Your task to perform on an android device: move a message to another label in the gmail app Image 0: 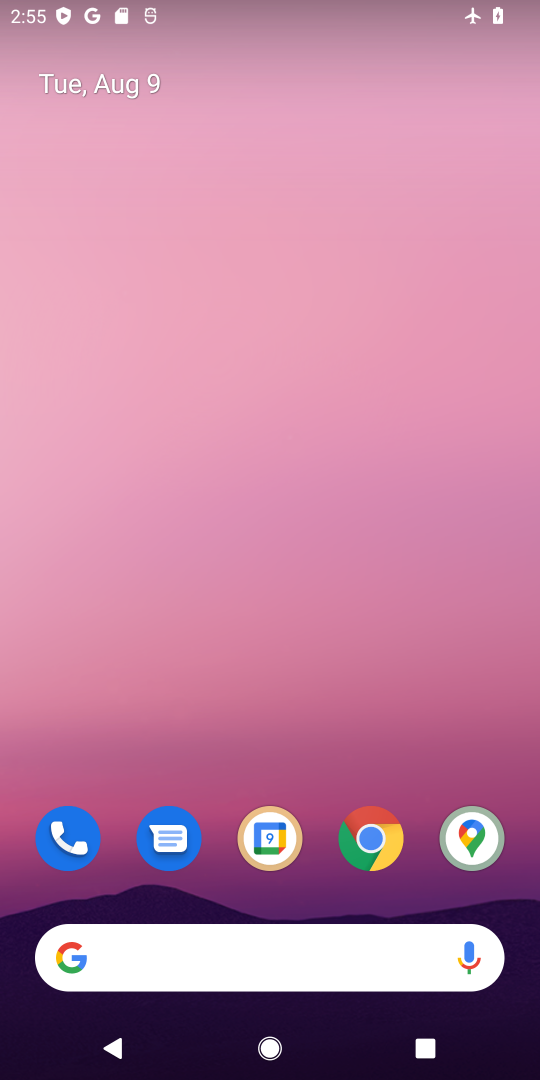
Step 0: drag from (332, 639) to (250, 3)
Your task to perform on an android device: move a message to another label in the gmail app Image 1: 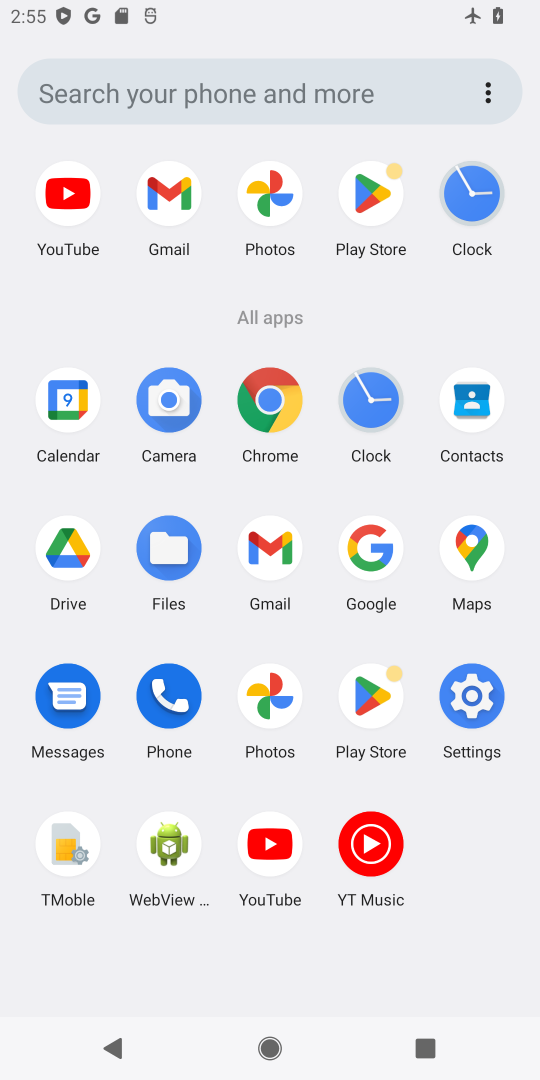
Step 1: click (257, 547)
Your task to perform on an android device: move a message to another label in the gmail app Image 2: 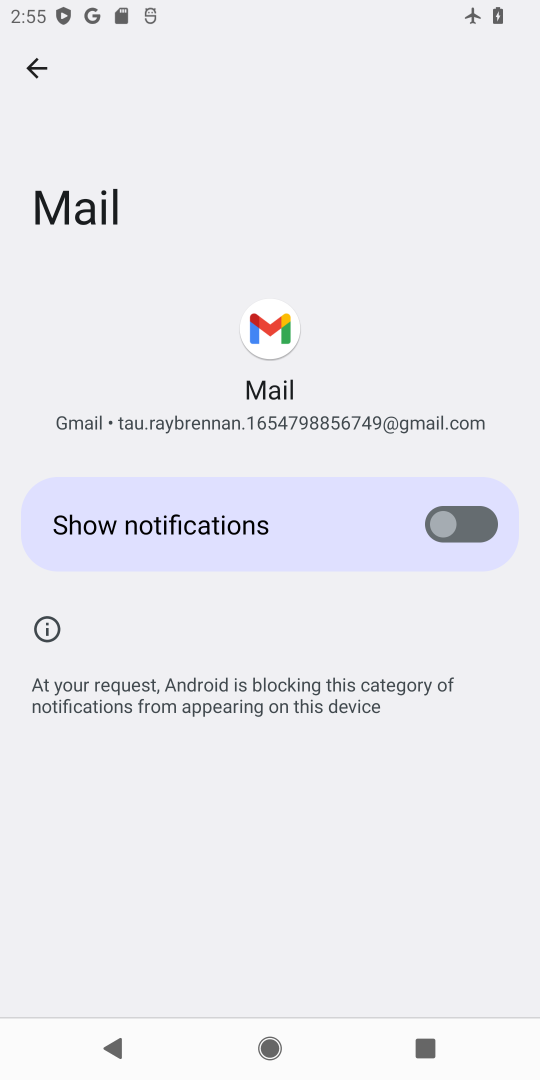
Step 2: press back button
Your task to perform on an android device: move a message to another label in the gmail app Image 3: 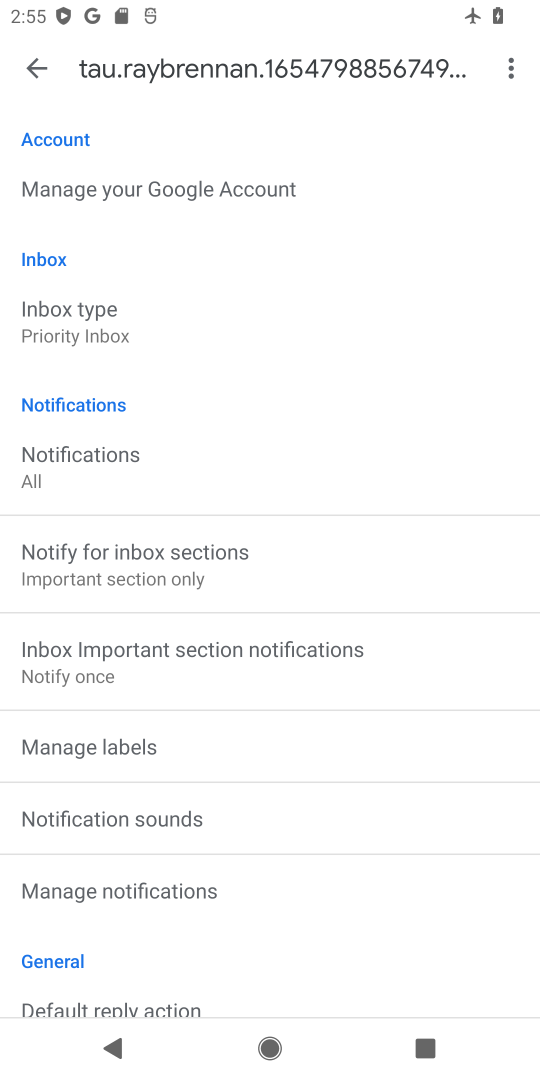
Step 3: press back button
Your task to perform on an android device: move a message to another label in the gmail app Image 4: 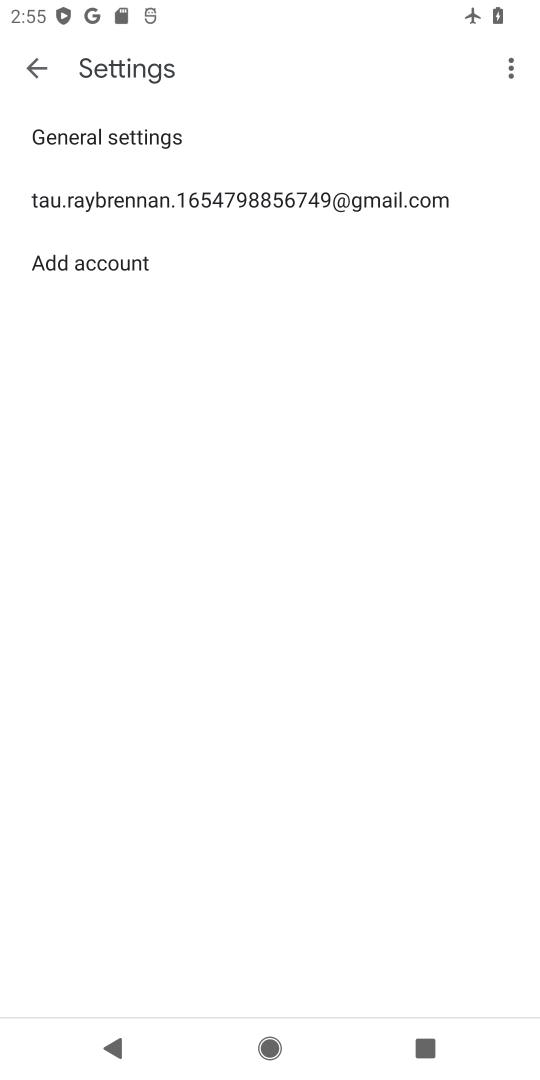
Step 4: press back button
Your task to perform on an android device: move a message to another label in the gmail app Image 5: 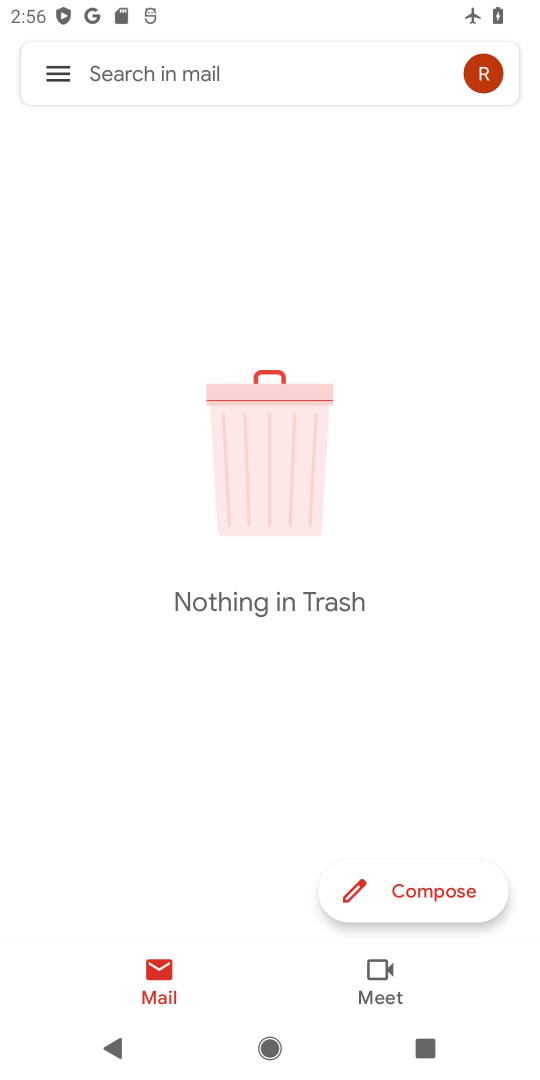
Step 5: click (47, 57)
Your task to perform on an android device: move a message to another label in the gmail app Image 6: 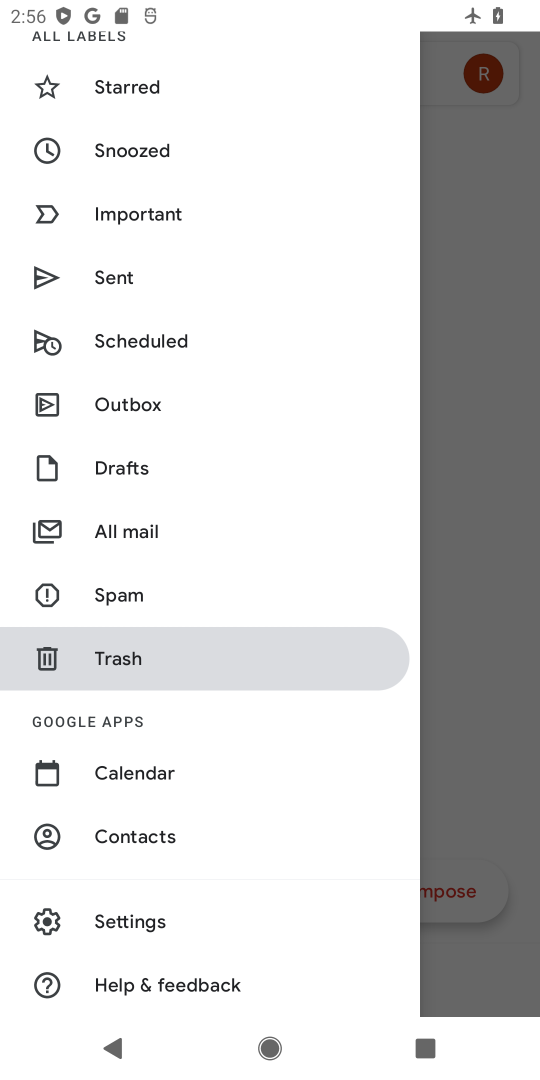
Step 6: drag from (328, 955) to (330, 393)
Your task to perform on an android device: move a message to another label in the gmail app Image 7: 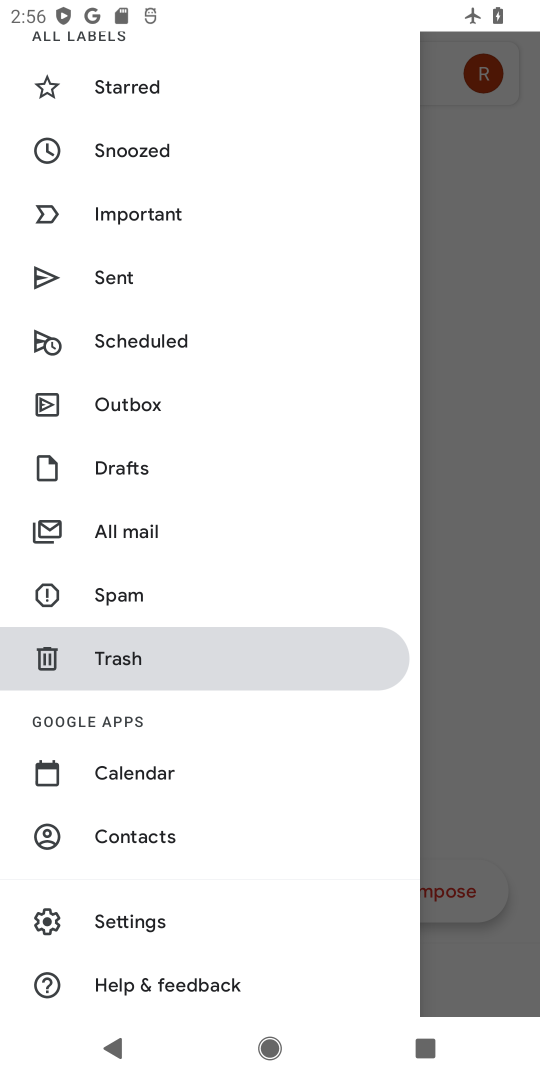
Step 7: click (133, 531)
Your task to perform on an android device: move a message to another label in the gmail app Image 8: 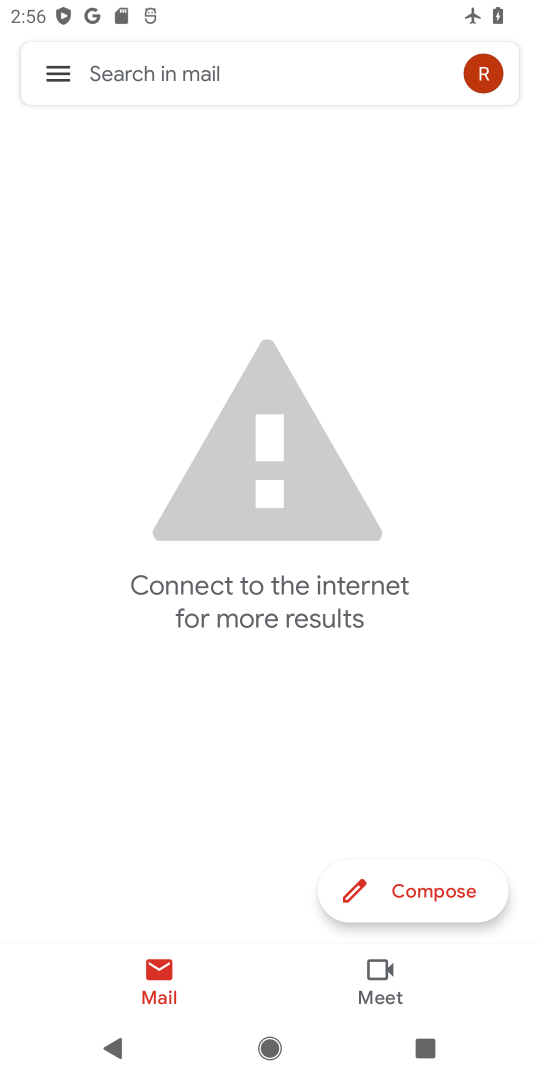
Step 8: task complete